Your task to perform on an android device: Add "macbook" to the cart on ebay Image 0: 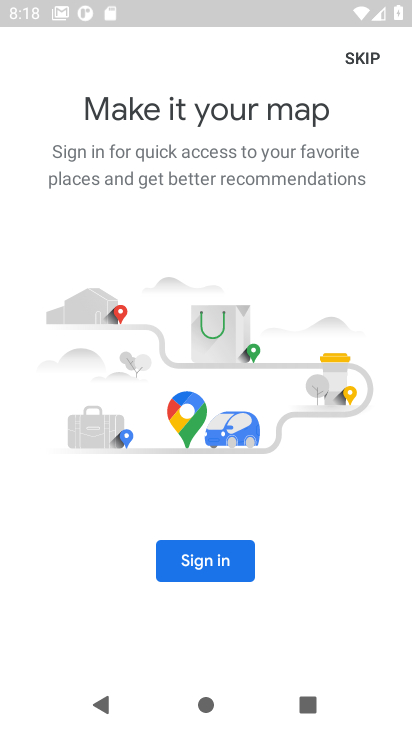
Step 0: press home button
Your task to perform on an android device: Add "macbook" to the cart on ebay Image 1: 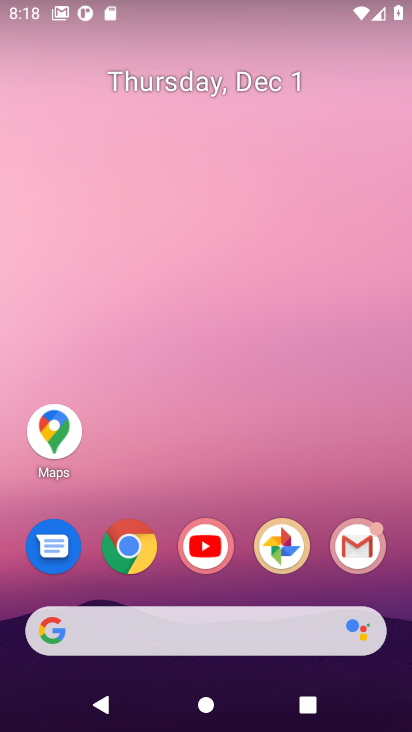
Step 1: click (129, 556)
Your task to perform on an android device: Add "macbook" to the cart on ebay Image 2: 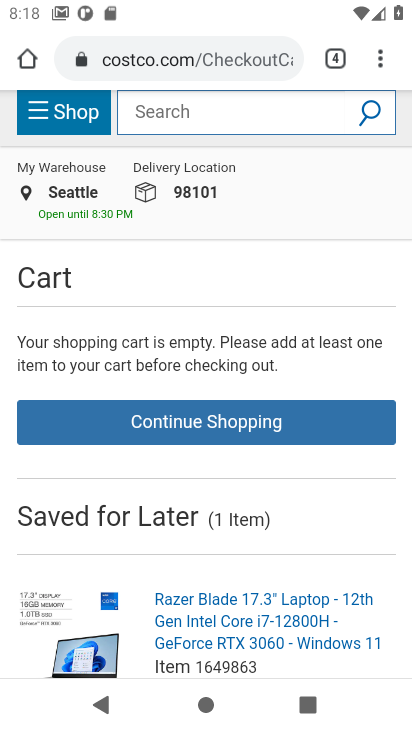
Step 2: click (193, 60)
Your task to perform on an android device: Add "macbook" to the cart on ebay Image 3: 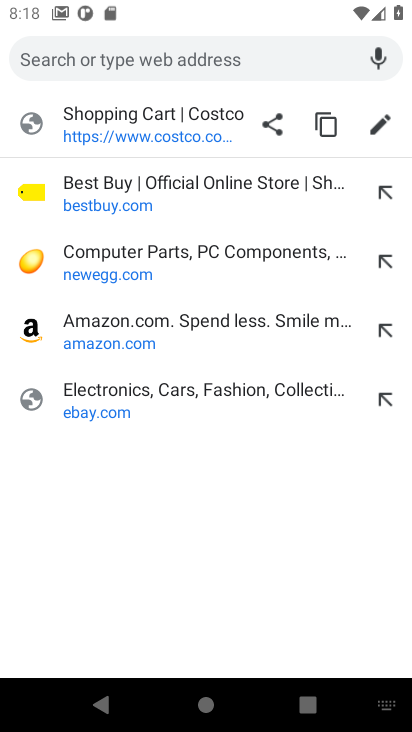
Step 3: click (95, 392)
Your task to perform on an android device: Add "macbook" to the cart on ebay Image 4: 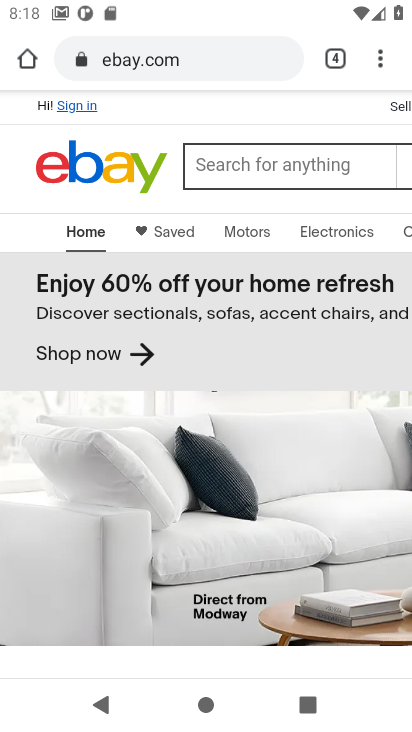
Step 4: click (238, 181)
Your task to perform on an android device: Add "macbook" to the cart on ebay Image 5: 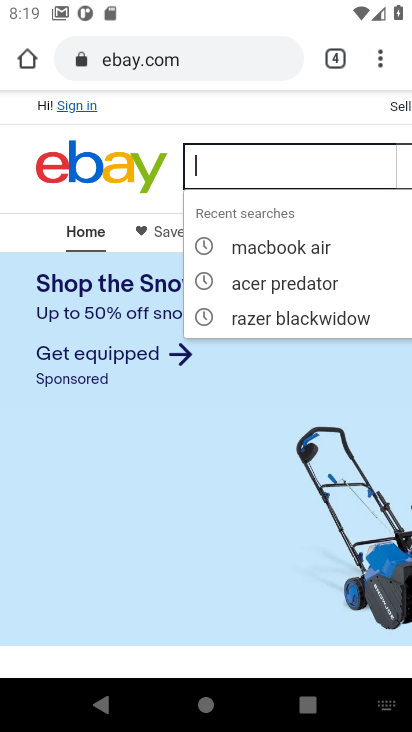
Step 5: type "macbook"
Your task to perform on an android device: Add "macbook" to the cart on ebay Image 6: 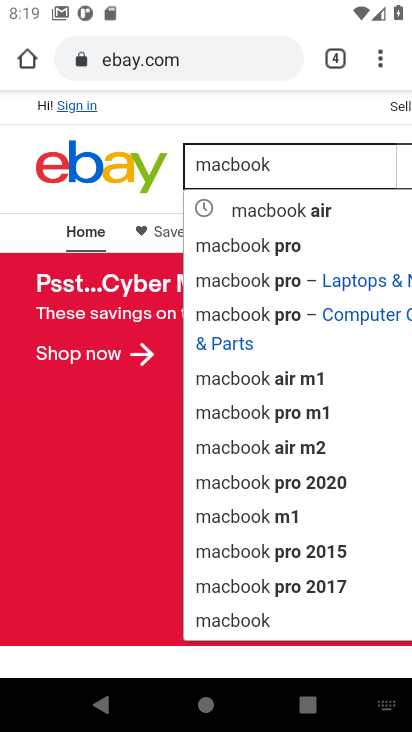
Step 6: click (224, 626)
Your task to perform on an android device: Add "macbook" to the cart on ebay Image 7: 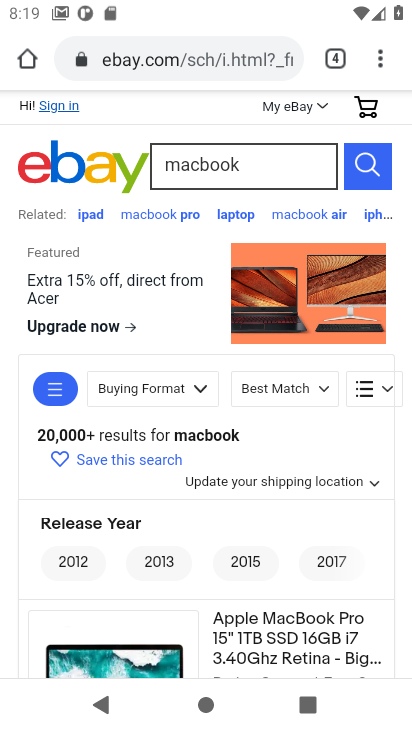
Step 7: drag from (172, 618) to (167, 408)
Your task to perform on an android device: Add "macbook" to the cart on ebay Image 8: 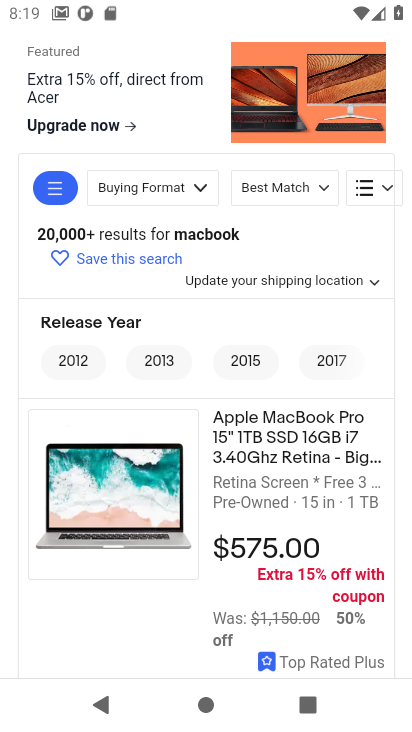
Step 8: click (252, 457)
Your task to perform on an android device: Add "macbook" to the cart on ebay Image 9: 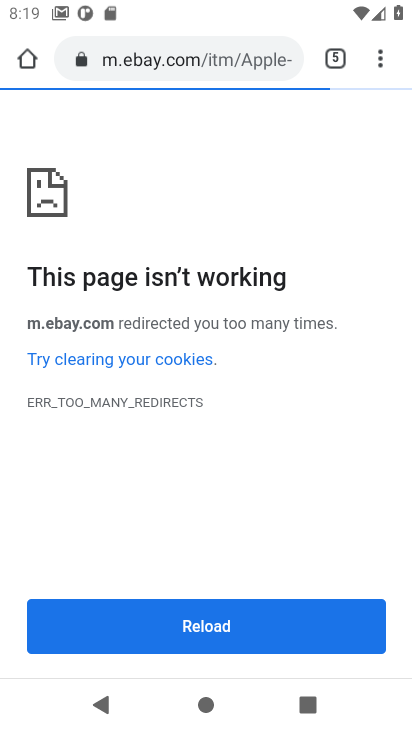
Step 9: task complete